Your task to perform on an android device: open app "DoorDash - Dasher" (install if not already installed) Image 0: 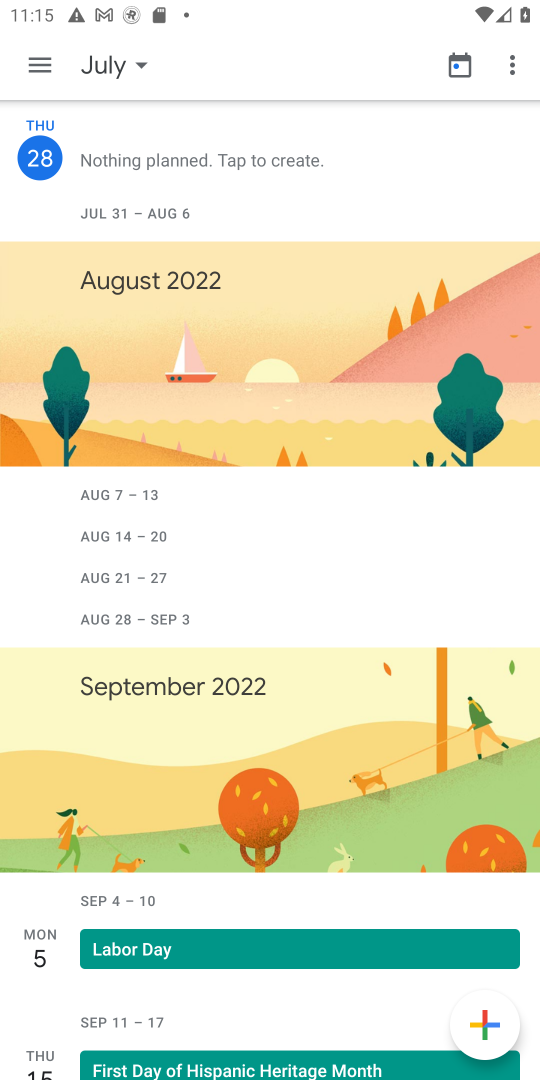
Step 0: press home button
Your task to perform on an android device: open app "DoorDash - Dasher" (install if not already installed) Image 1: 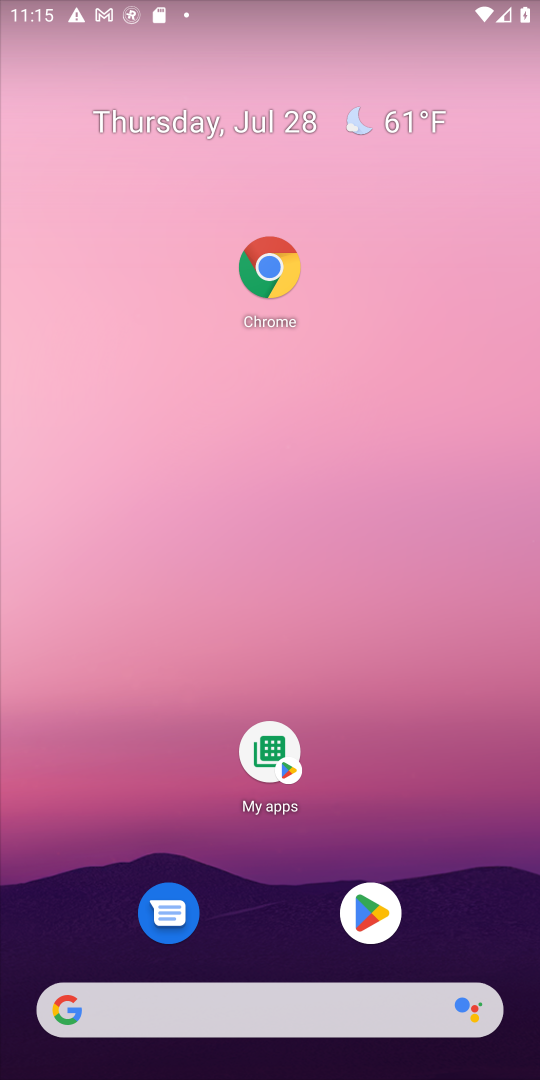
Step 1: click (343, 918)
Your task to perform on an android device: open app "DoorDash - Dasher" (install if not already installed) Image 2: 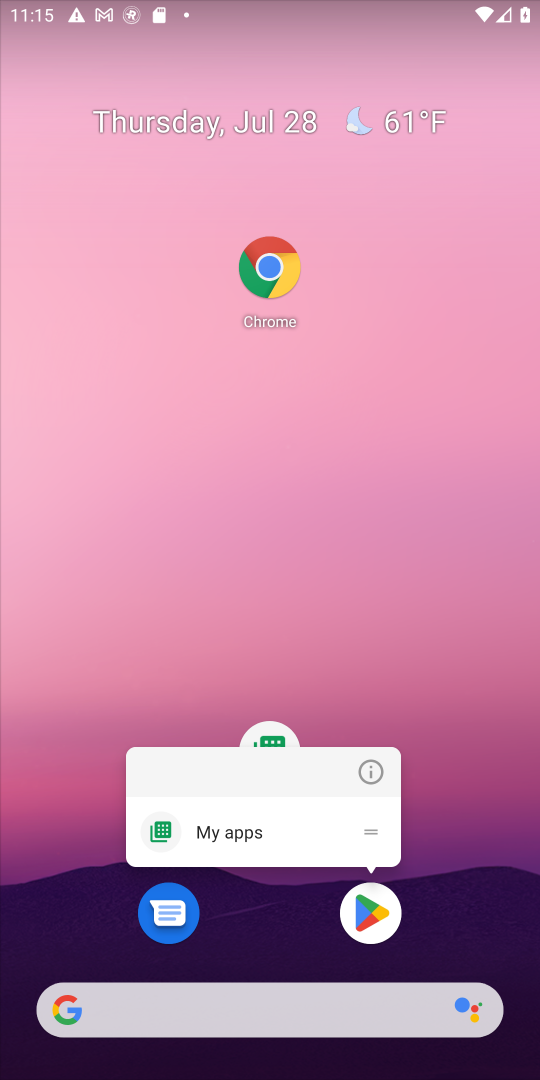
Step 2: click (369, 924)
Your task to perform on an android device: open app "DoorDash - Dasher" (install if not already installed) Image 3: 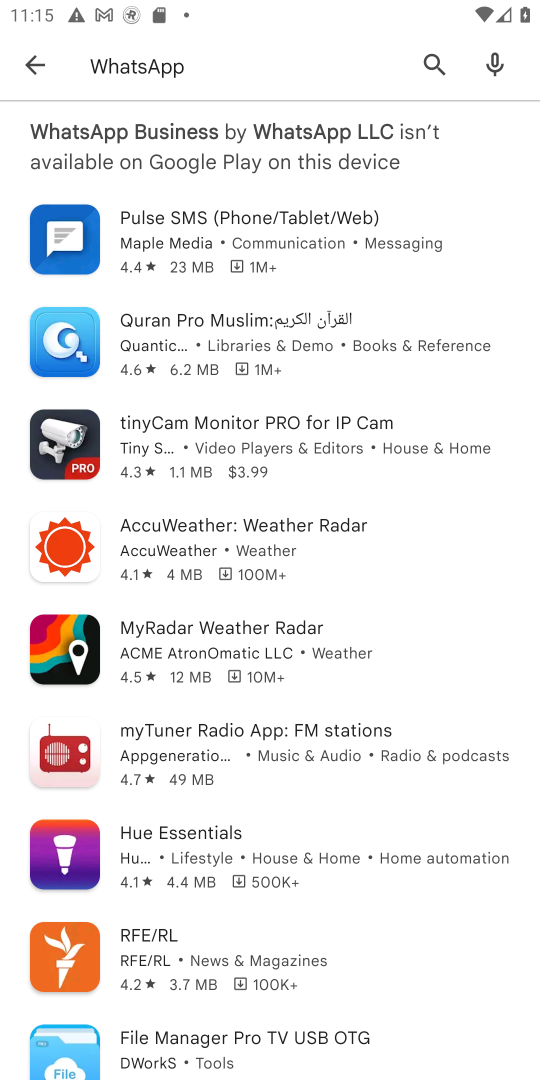
Step 3: click (430, 61)
Your task to perform on an android device: open app "DoorDash - Dasher" (install if not already installed) Image 4: 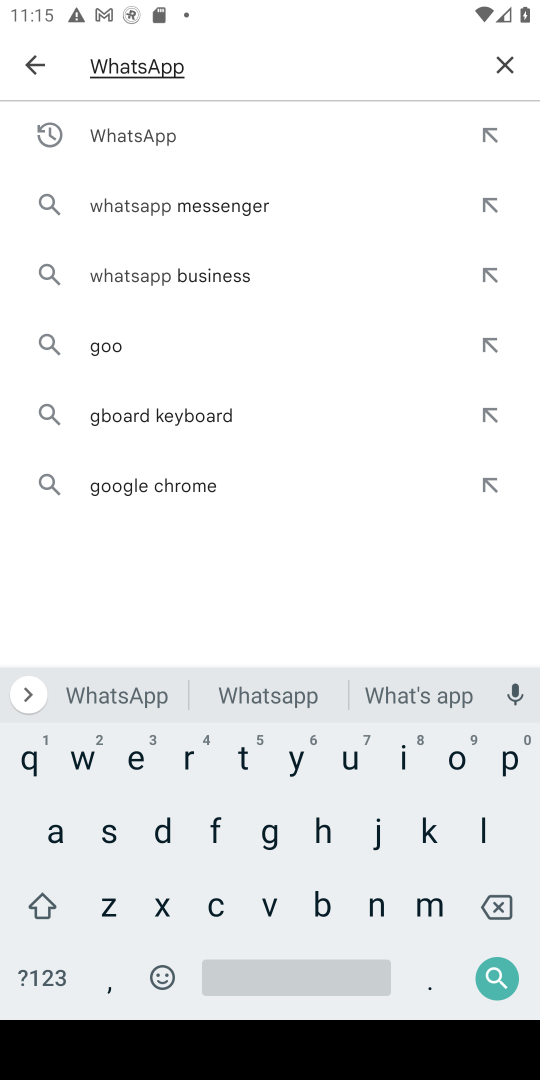
Step 4: click (496, 60)
Your task to perform on an android device: open app "DoorDash - Dasher" (install if not already installed) Image 5: 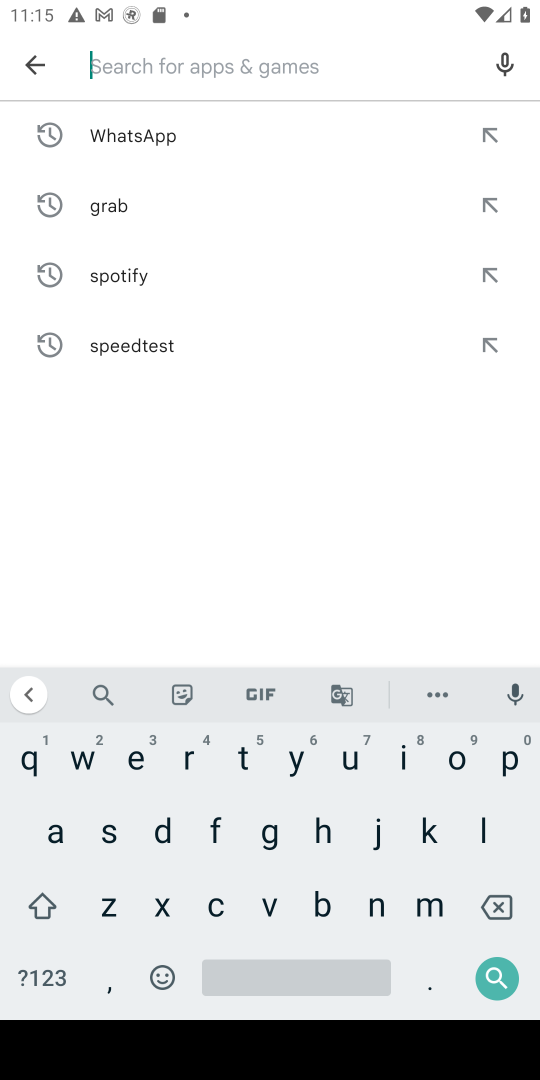
Step 5: click (116, 718)
Your task to perform on an android device: open app "DoorDash - Dasher" (install if not already installed) Image 6: 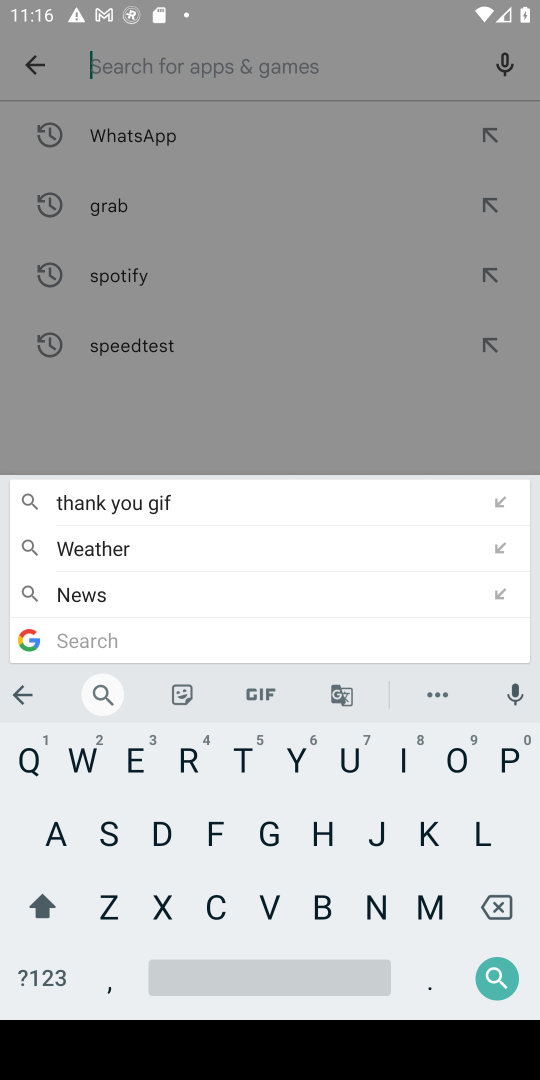
Step 6: type "doordash"
Your task to perform on an android device: open app "DoorDash - Dasher" (install if not already installed) Image 7: 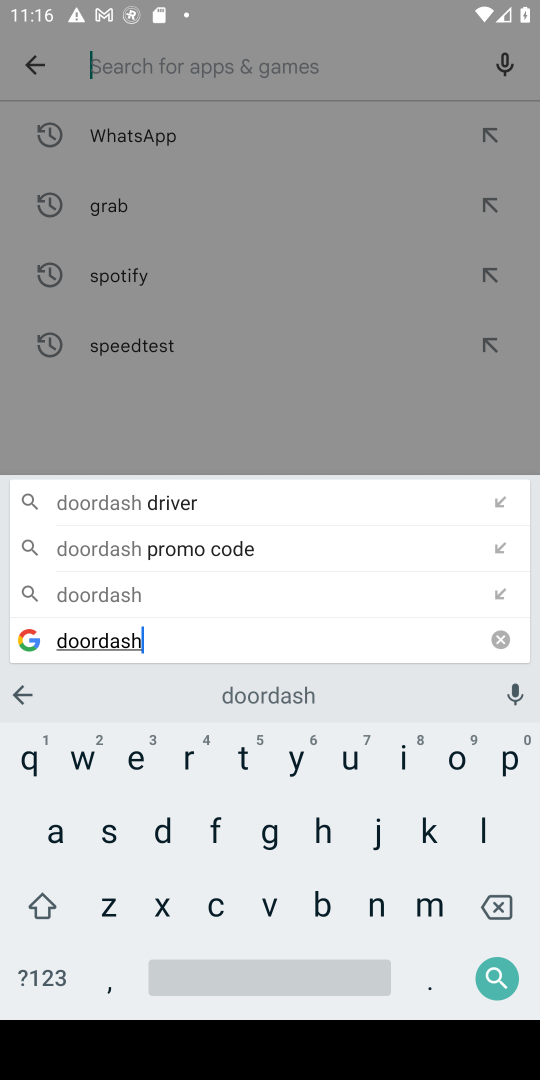
Step 7: click (168, 240)
Your task to perform on an android device: open app "DoorDash - Dasher" (install if not already installed) Image 8: 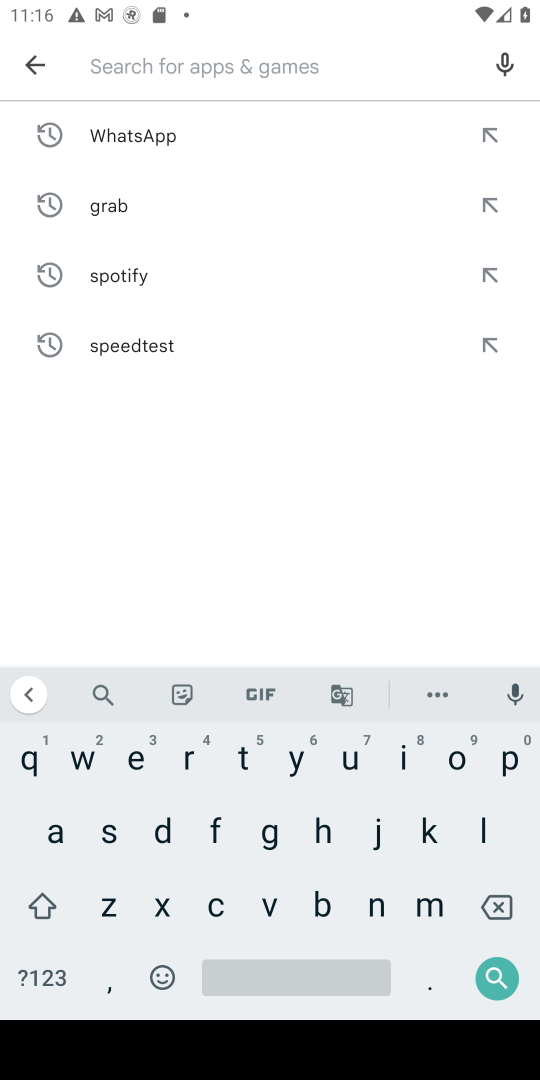
Step 8: type "doordash"
Your task to perform on an android device: open app "DoorDash - Dasher" (install if not already installed) Image 9: 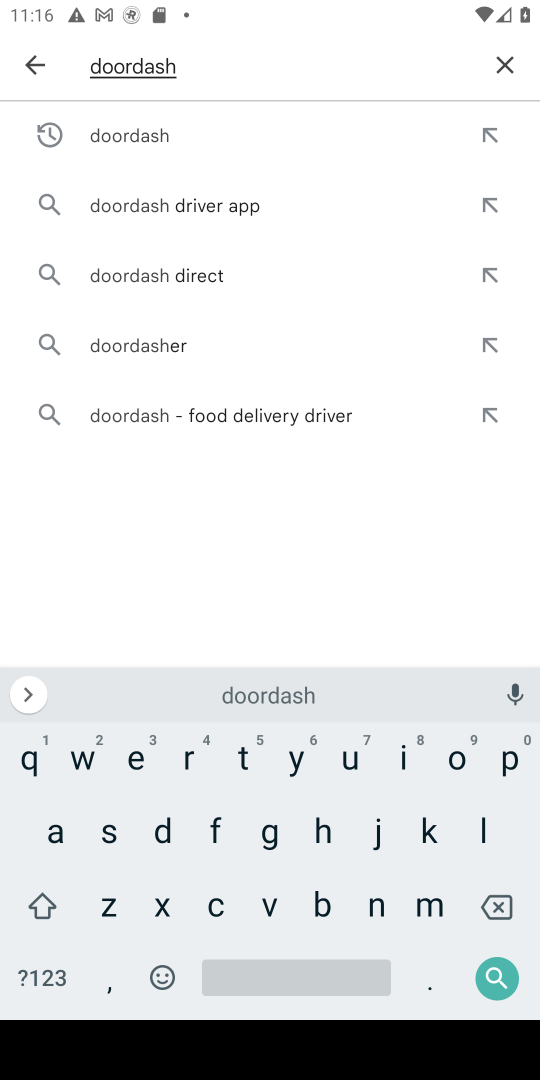
Step 9: click (504, 977)
Your task to perform on an android device: open app "DoorDash - Dasher" (install if not already installed) Image 10: 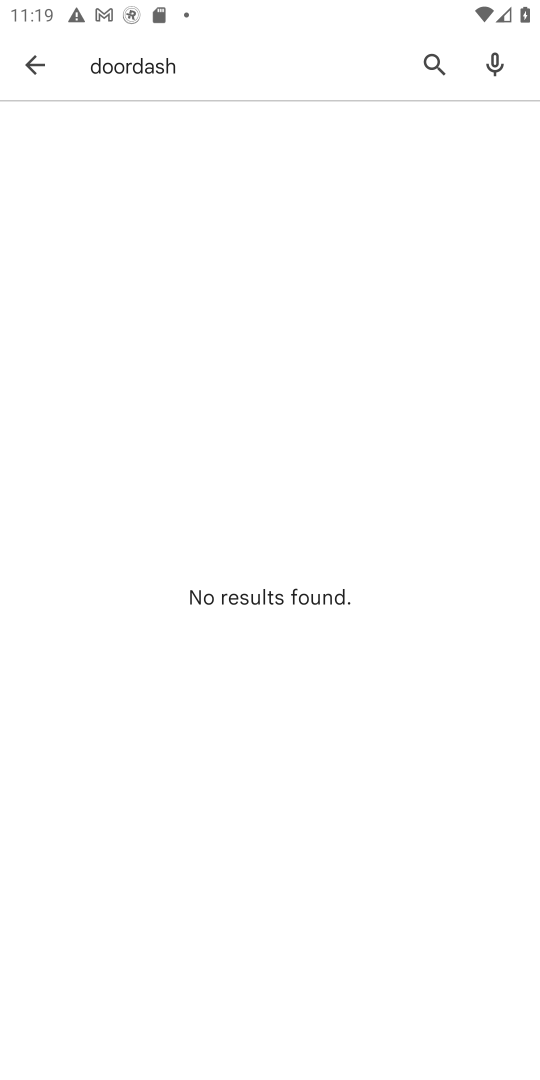
Step 10: task complete